Your task to perform on an android device: find which apps use the phone's location Image 0: 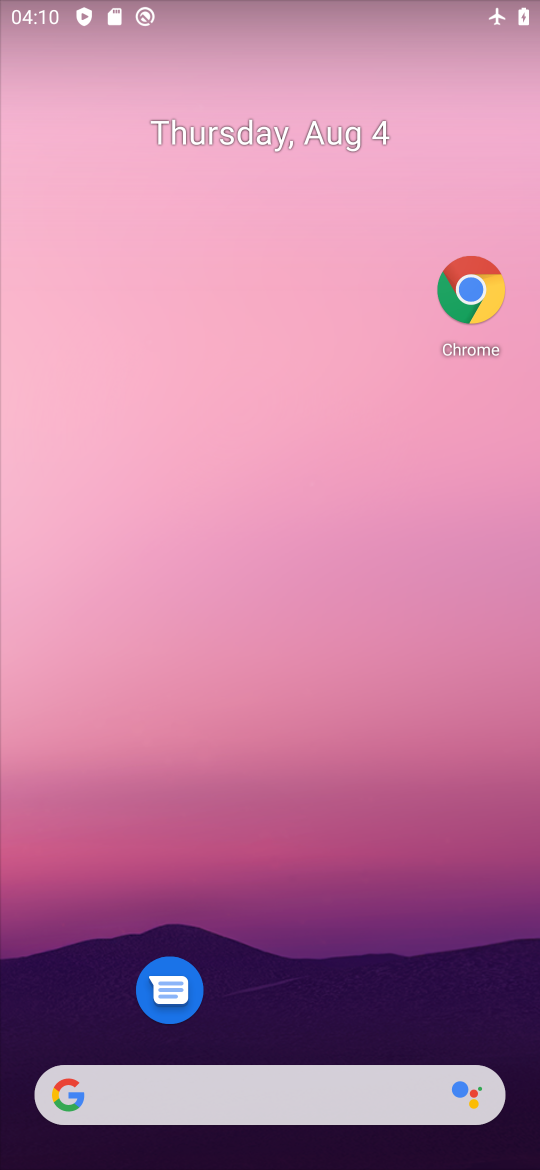
Step 0: drag from (403, 1026) to (405, 41)
Your task to perform on an android device: find which apps use the phone's location Image 1: 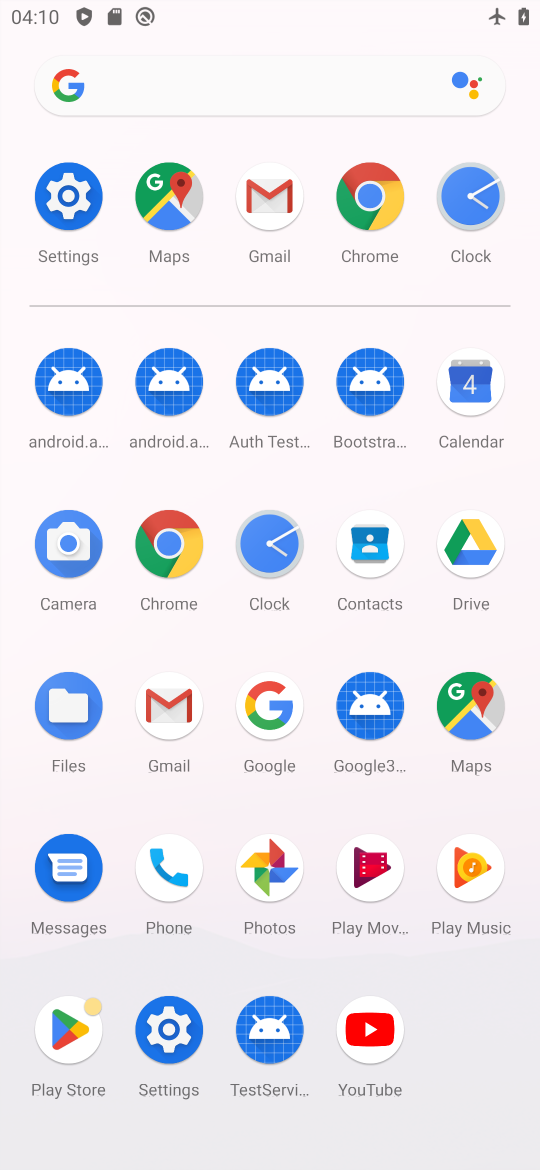
Step 1: click (96, 232)
Your task to perform on an android device: find which apps use the phone's location Image 2: 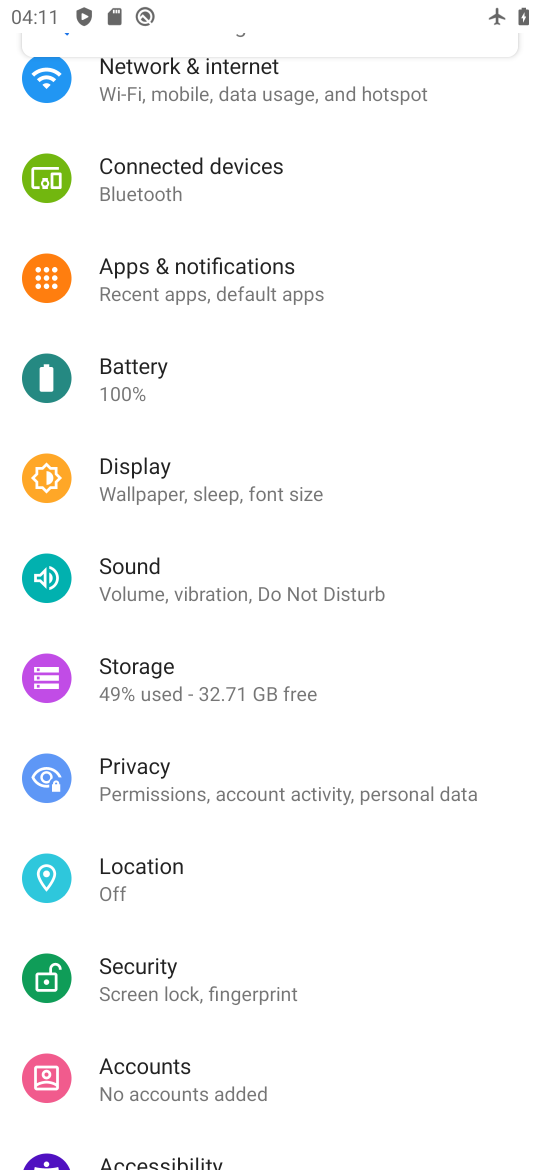
Step 2: click (142, 892)
Your task to perform on an android device: find which apps use the phone's location Image 3: 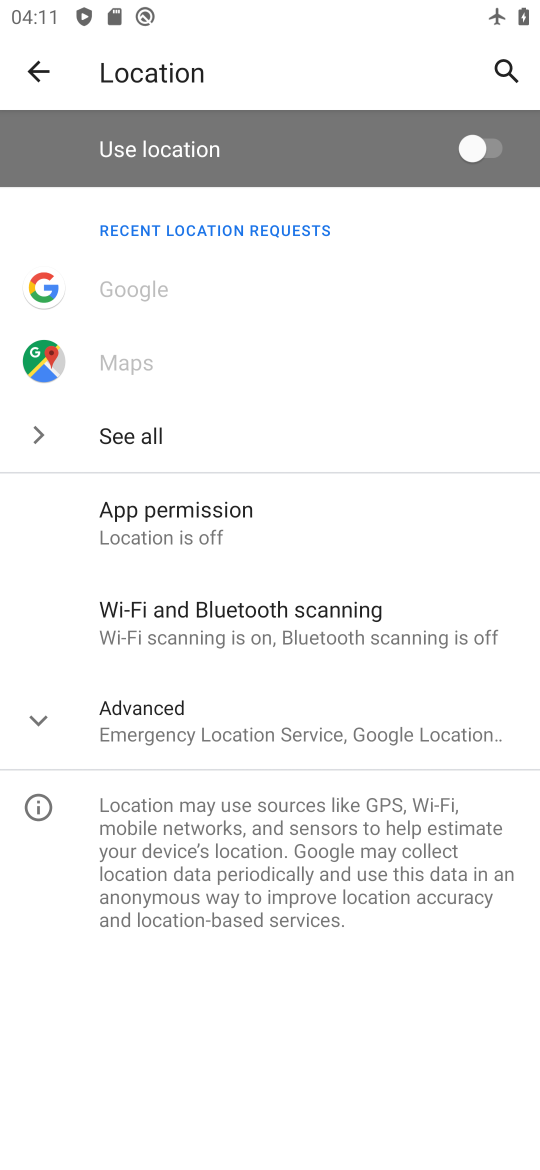
Step 3: click (246, 549)
Your task to perform on an android device: find which apps use the phone's location Image 4: 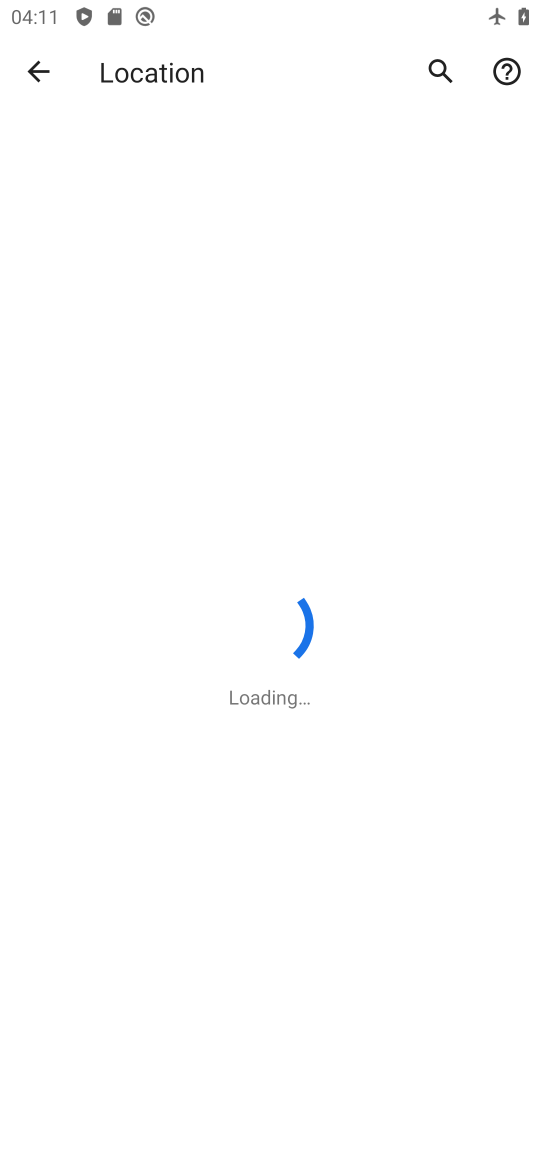
Step 4: task complete